Your task to perform on an android device: Search for Mexican restaurants on Maps Image 0: 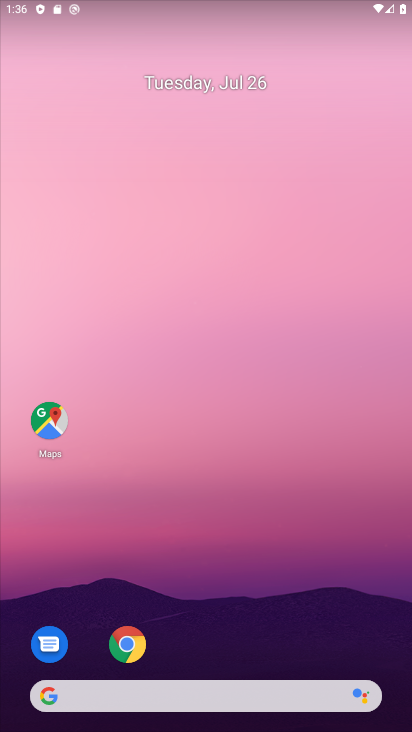
Step 0: click (50, 419)
Your task to perform on an android device: Search for Mexican restaurants on Maps Image 1: 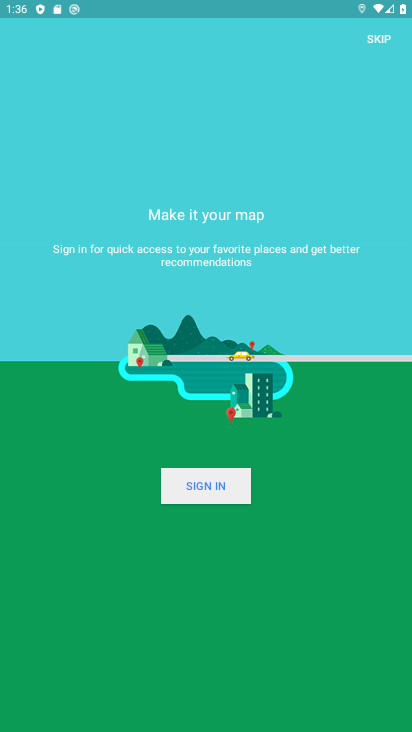
Step 1: click (379, 34)
Your task to perform on an android device: Search for Mexican restaurants on Maps Image 2: 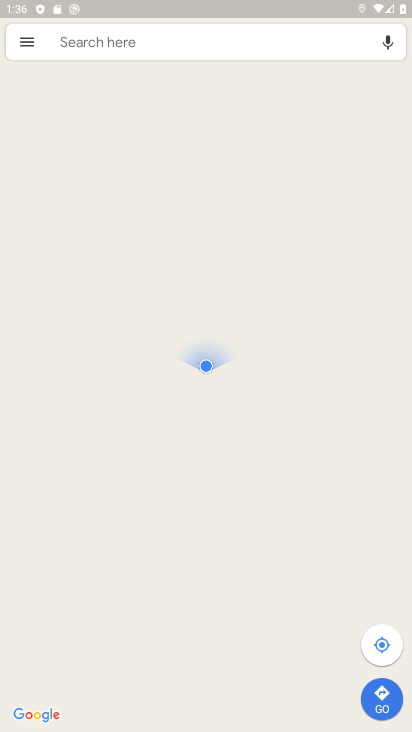
Step 2: click (143, 36)
Your task to perform on an android device: Search for Mexican restaurants on Maps Image 3: 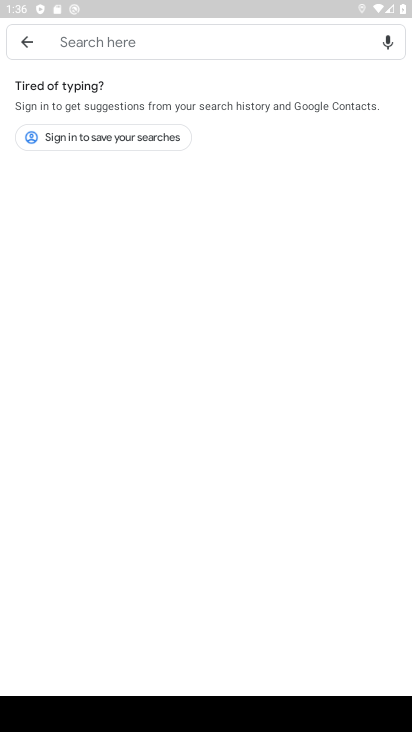
Step 3: type "Mexican restaurants"
Your task to perform on an android device: Search for Mexican restaurants on Maps Image 4: 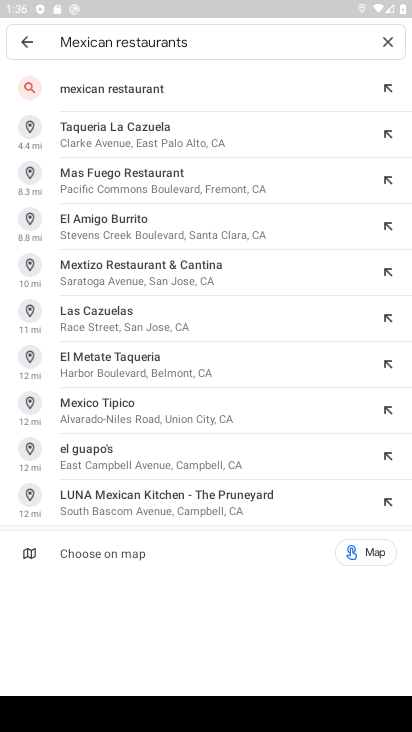
Step 4: click (260, 83)
Your task to perform on an android device: Search for Mexican restaurants on Maps Image 5: 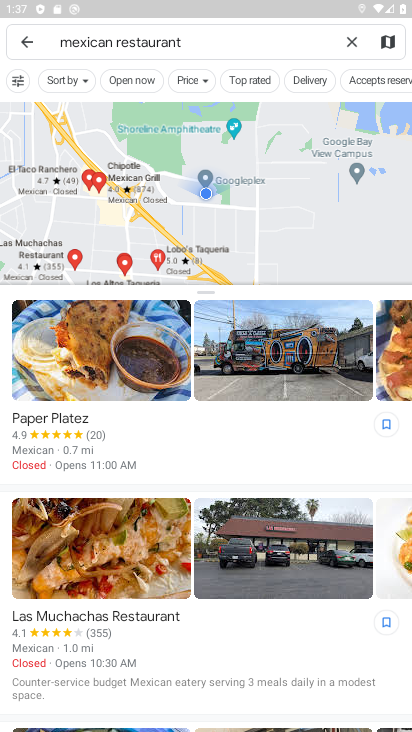
Step 5: task complete